Your task to perform on an android device: Open calendar and show me the fourth week of next month Image 0: 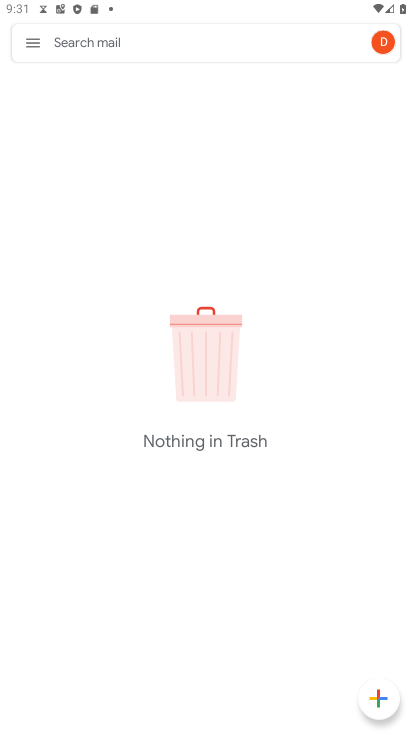
Step 0: press back button
Your task to perform on an android device: Open calendar and show me the fourth week of next month Image 1: 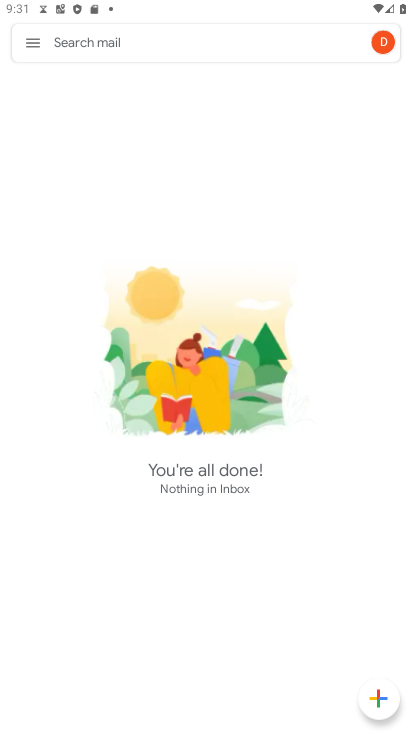
Step 1: press back button
Your task to perform on an android device: Open calendar and show me the fourth week of next month Image 2: 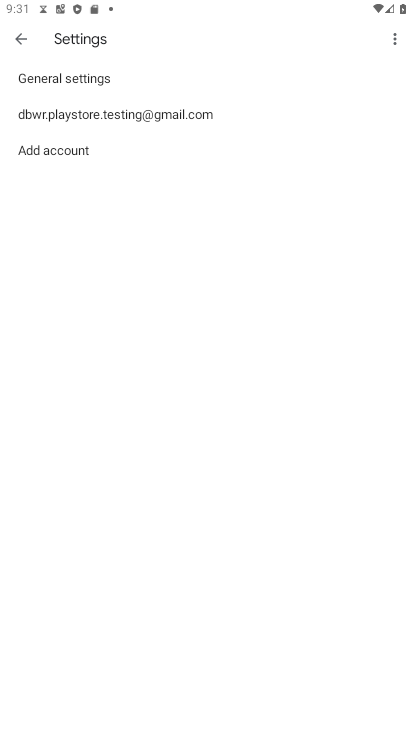
Step 2: press back button
Your task to perform on an android device: Open calendar and show me the fourth week of next month Image 3: 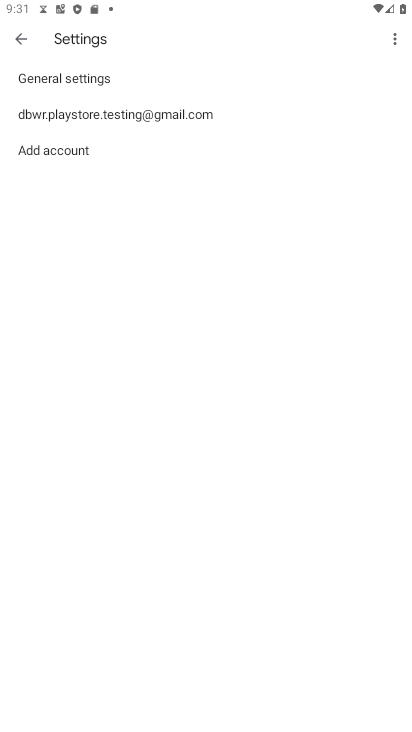
Step 3: press back button
Your task to perform on an android device: Open calendar and show me the fourth week of next month Image 4: 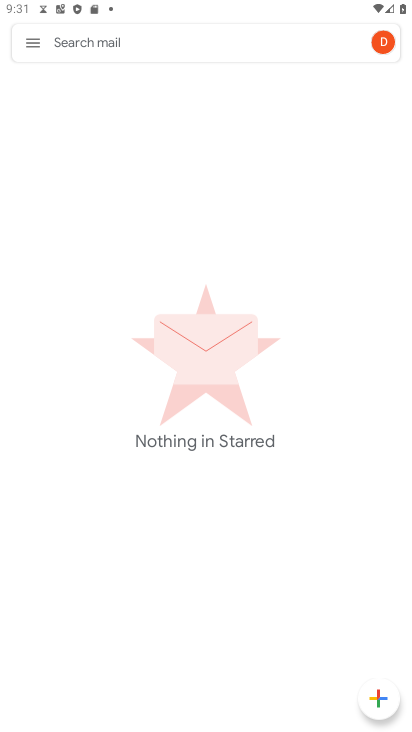
Step 4: press back button
Your task to perform on an android device: Open calendar and show me the fourth week of next month Image 5: 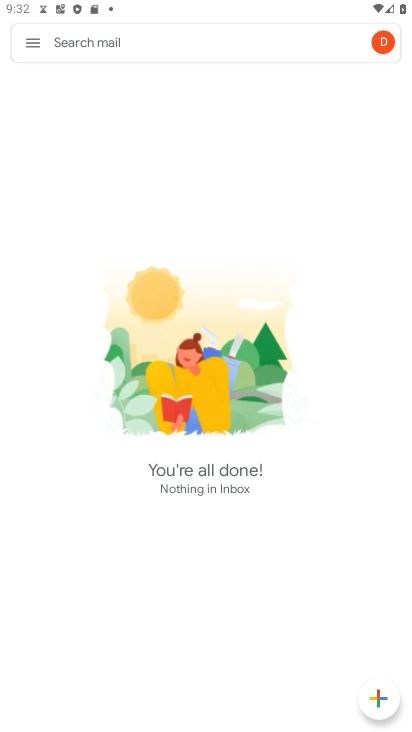
Step 5: press home button
Your task to perform on an android device: Open calendar and show me the fourth week of next month Image 6: 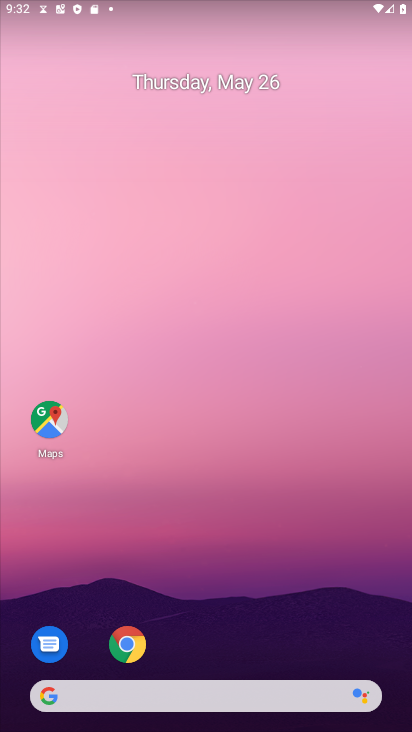
Step 6: drag from (183, 644) to (242, 175)
Your task to perform on an android device: Open calendar and show me the fourth week of next month Image 7: 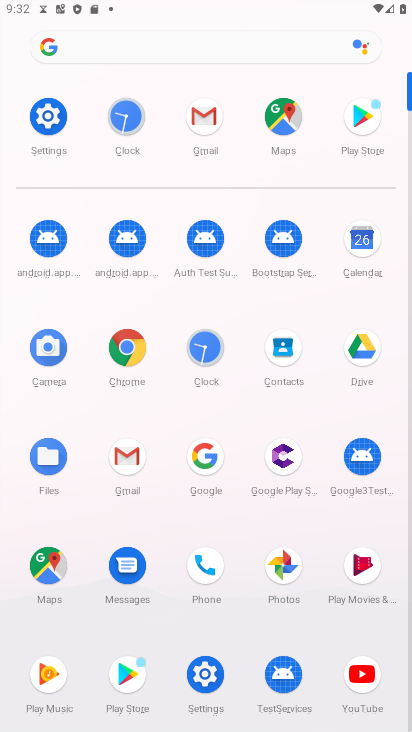
Step 7: click (361, 252)
Your task to perform on an android device: Open calendar and show me the fourth week of next month Image 8: 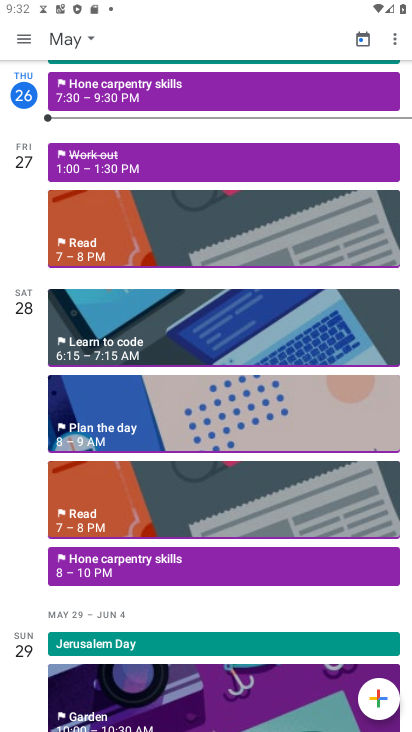
Step 8: click (70, 39)
Your task to perform on an android device: Open calendar and show me the fourth week of next month Image 9: 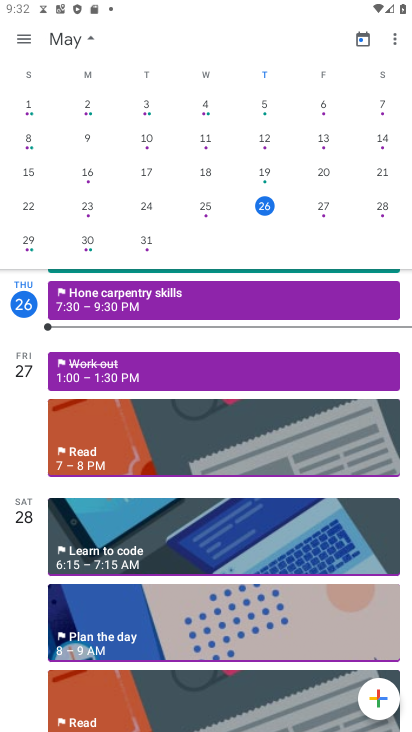
Step 9: drag from (387, 170) to (40, 172)
Your task to perform on an android device: Open calendar and show me the fourth week of next month Image 10: 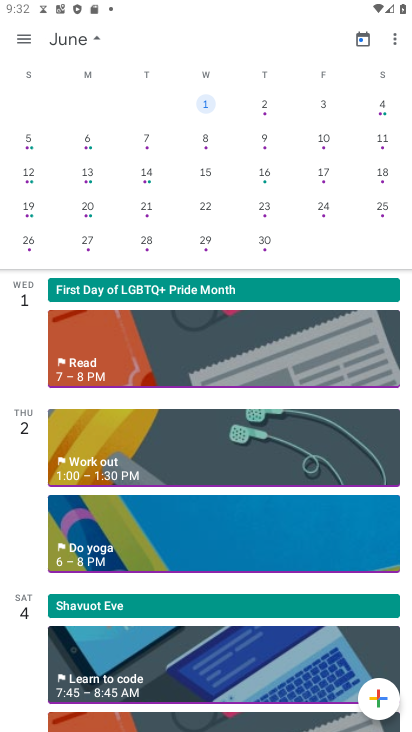
Step 10: click (87, 206)
Your task to perform on an android device: Open calendar and show me the fourth week of next month Image 11: 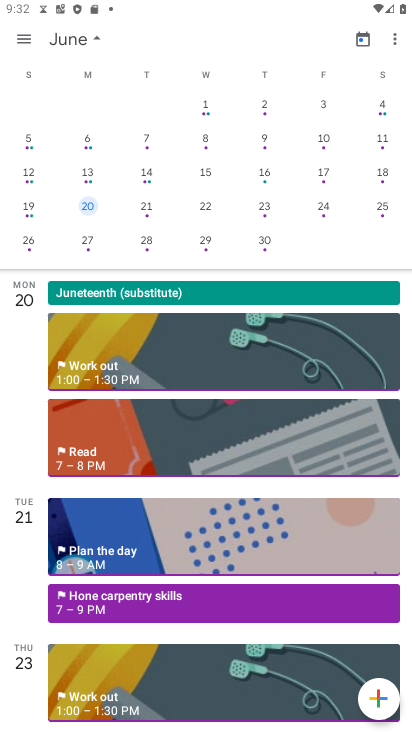
Step 11: task complete